Your task to perform on an android device: Show me popular videos on Youtube Image 0: 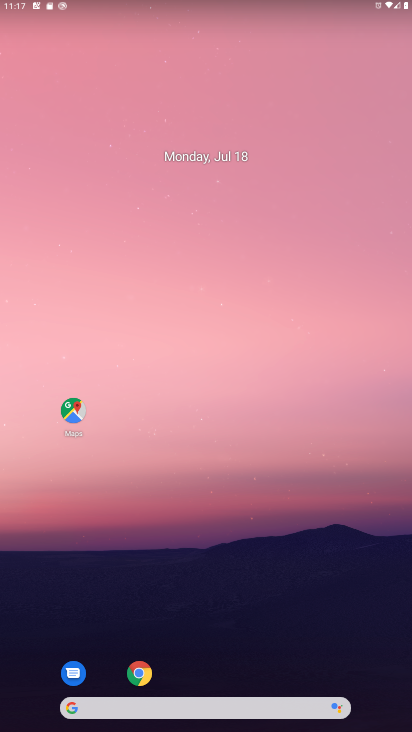
Step 0: drag from (200, 657) to (207, 157)
Your task to perform on an android device: Show me popular videos on Youtube Image 1: 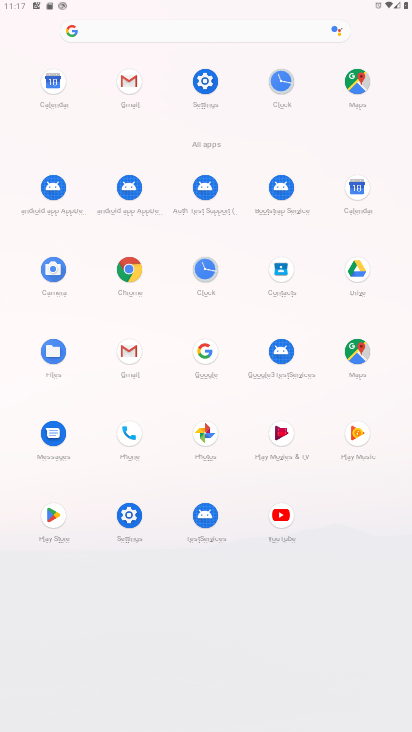
Step 1: click (283, 529)
Your task to perform on an android device: Show me popular videos on Youtube Image 2: 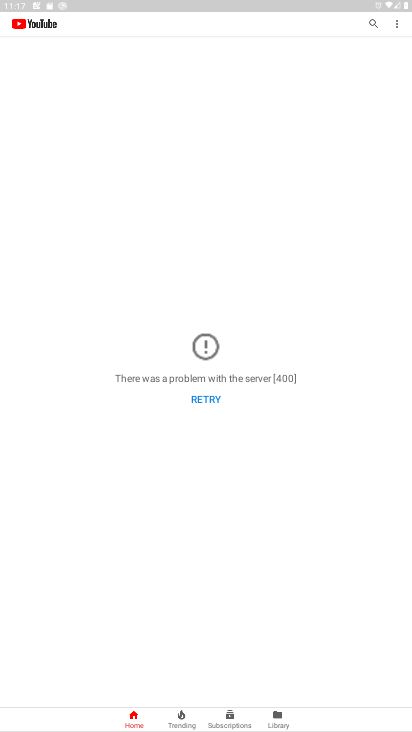
Step 2: click (366, 23)
Your task to perform on an android device: Show me popular videos on Youtube Image 3: 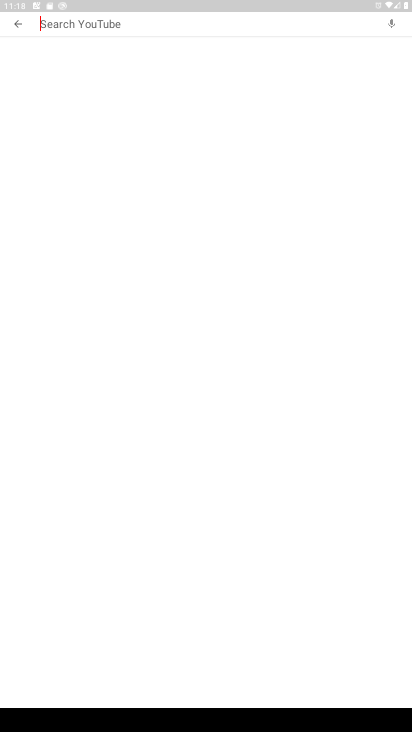
Step 3: click (230, 28)
Your task to perform on an android device: Show me popular videos on Youtube Image 4: 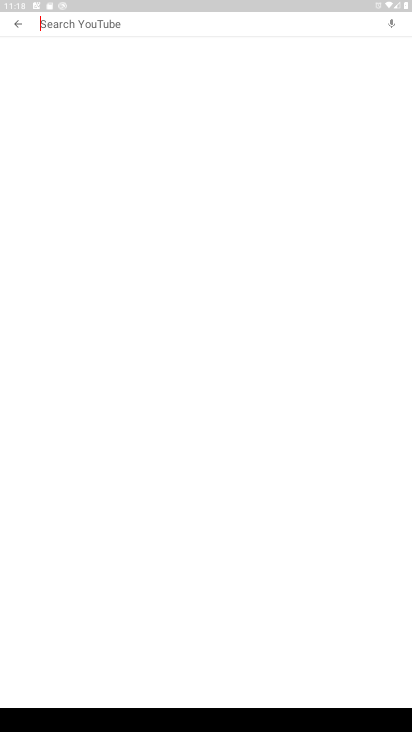
Step 4: type "popular videos"
Your task to perform on an android device: Show me popular videos on Youtube Image 5: 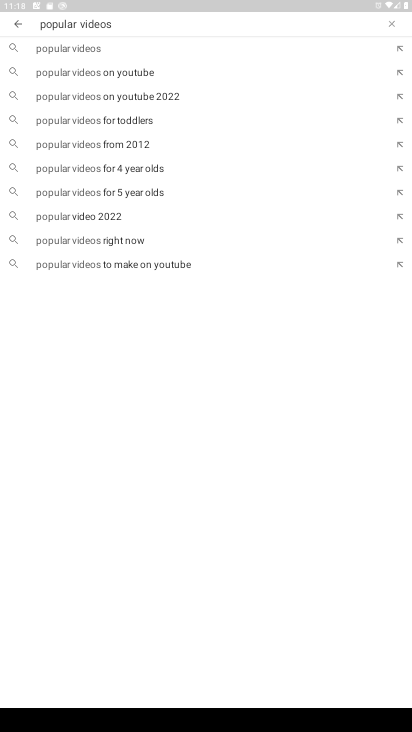
Step 5: click (91, 54)
Your task to perform on an android device: Show me popular videos on Youtube Image 6: 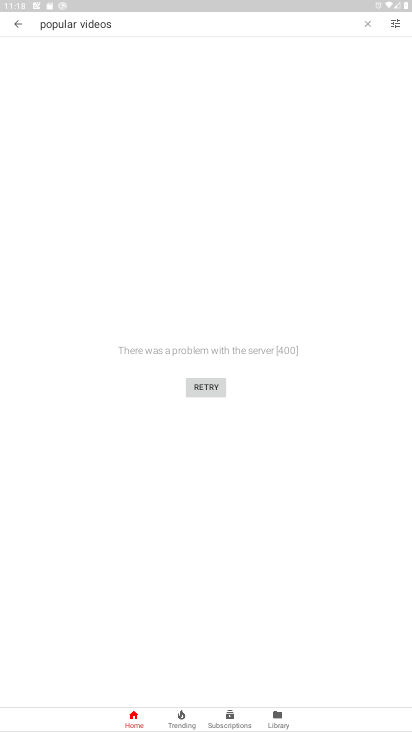
Step 6: task complete